Your task to perform on an android device: check storage Image 0: 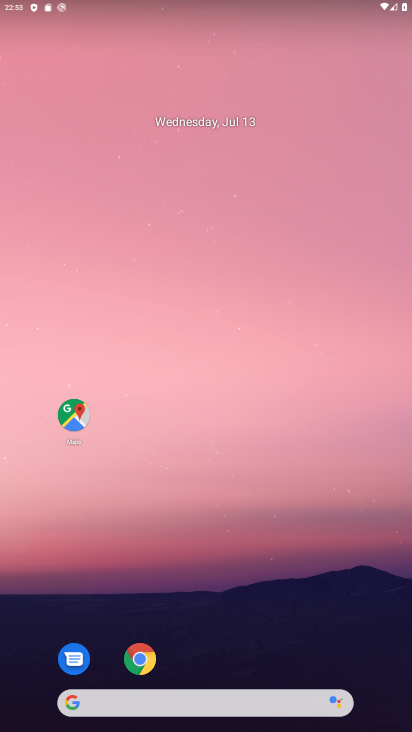
Step 0: drag from (339, 652) to (326, 56)
Your task to perform on an android device: check storage Image 1: 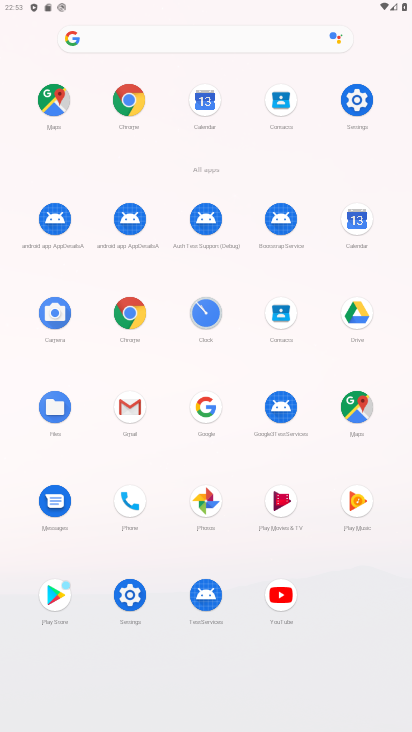
Step 1: click (132, 590)
Your task to perform on an android device: check storage Image 2: 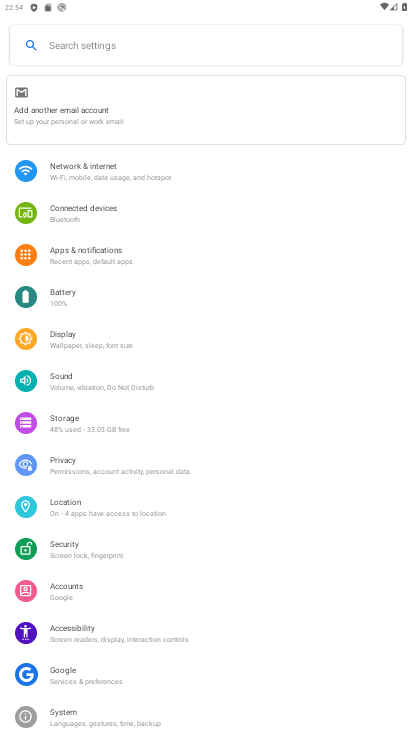
Step 2: click (77, 411)
Your task to perform on an android device: check storage Image 3: 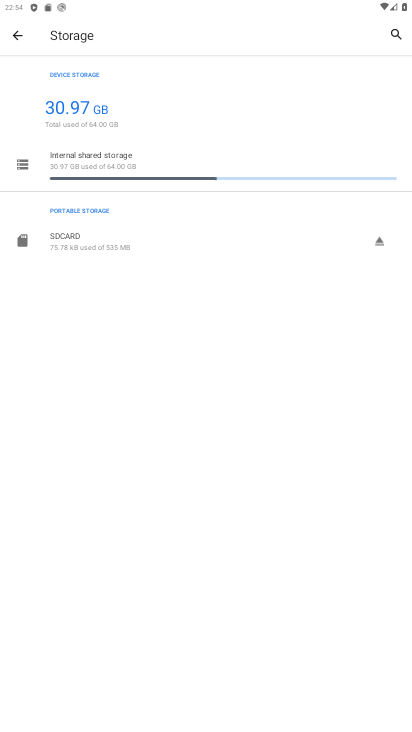
Step 3: task complete